Your task to perform on an android device: Open battery settings Image 0: 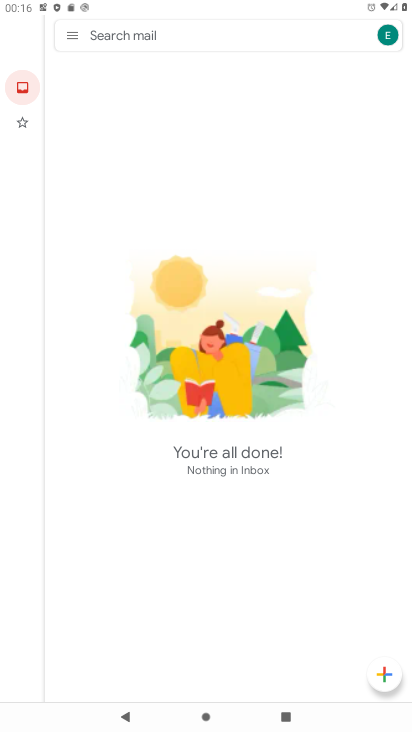
Step 0: press home button
Your task to perform on an android device: Open battery settings Image 1: 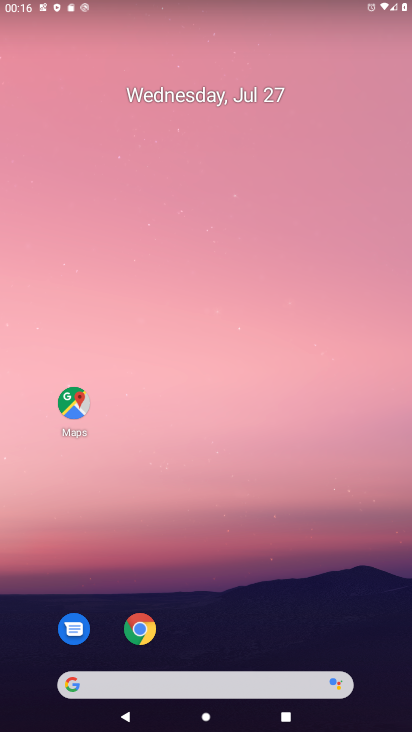
Step 1: drag from (238, 727) to (238, 208)
Your task to perform on an android device: Open battery settings Image 2: 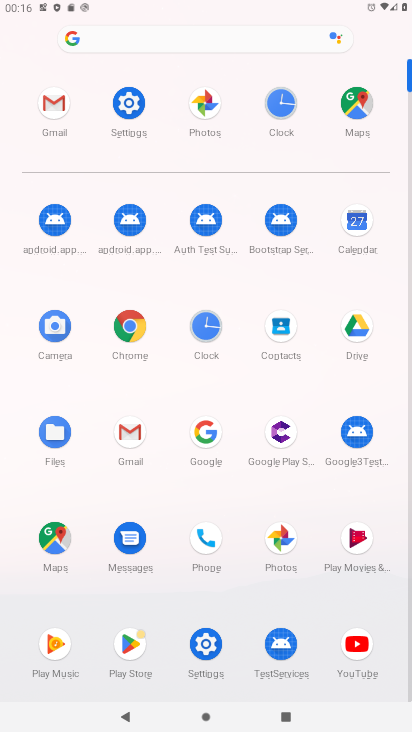
Step 2: click (126, 96)
Your task to perform on an android device: Open battery settings Image 3: 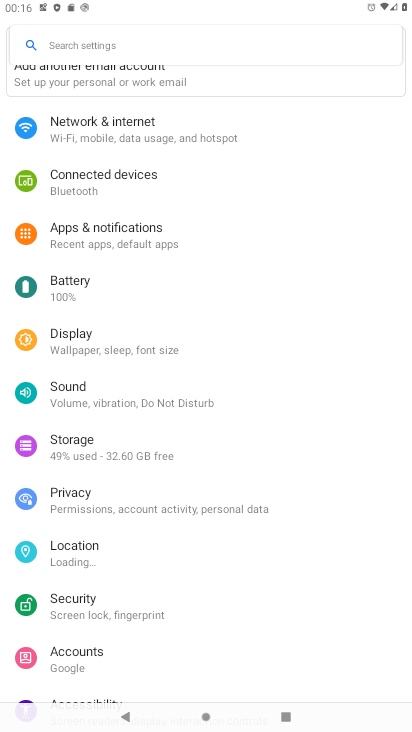
Step 3: click (68, 285)
Your task to perform on an android device: Open battery settings Image 4: 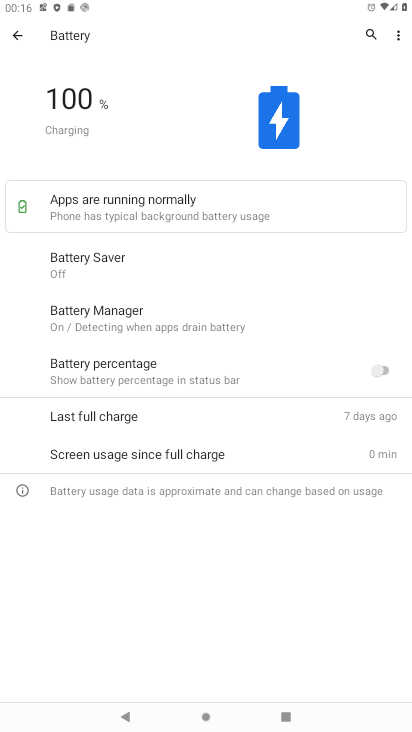
Step 4: task complete